Your task to perform on an android device: Open Google Chrome and open the bookmarks view Image 0: 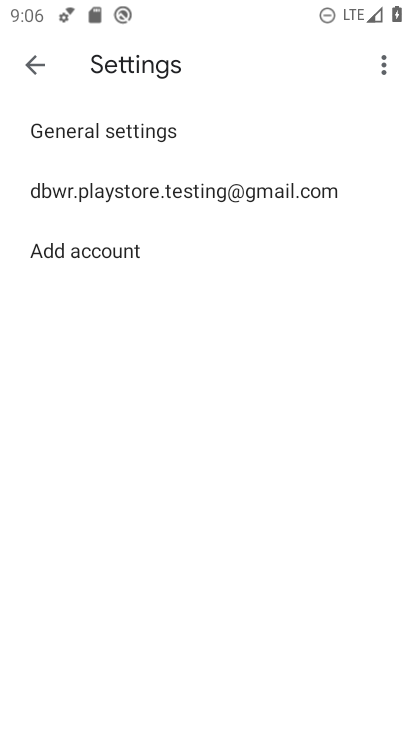
Step 0: press home button
Your task to perform on an android device: Open Google Chrome and open the bookmarks view Image 1: 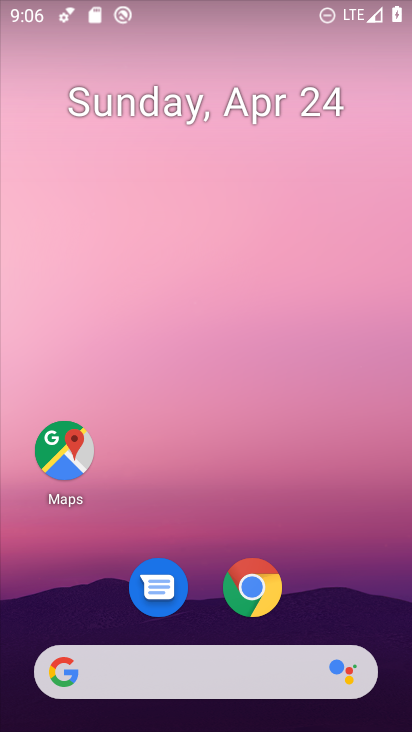
Step 1: drag from (356, 543) to (344, 67)
Your task to perform on an android device: Open Google Chrome and open the bookmarks view Image 2: 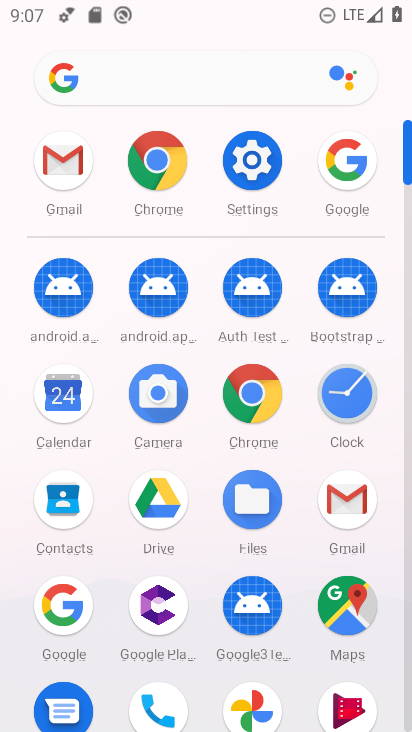
Step 2: click (261, 396)
Your task to perform on an android device: Open Google Chrome and open the bookmarks view Image 3: 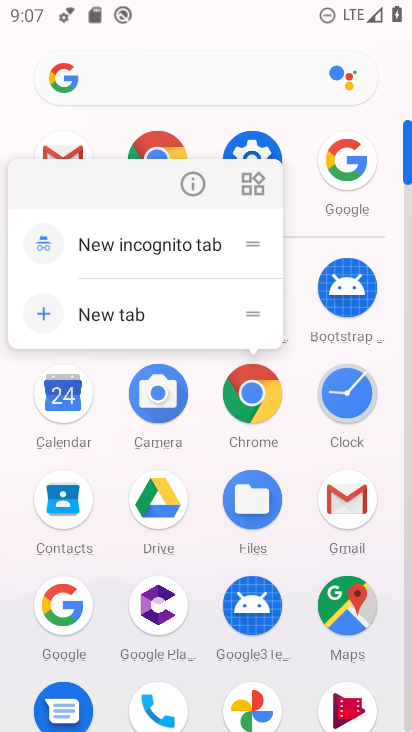
Step 3: click (264, 405)
Your task to perform on an android device: Open Google Chrome and open the bookmarks view Image 4: 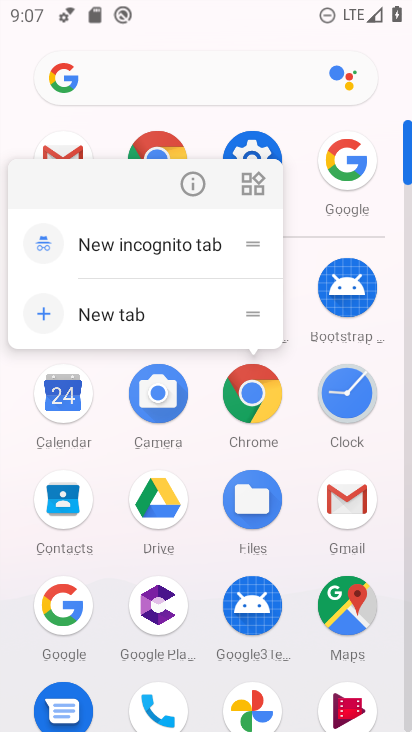
Step 4: click (264, 411)
Your task to perform on an android device: Open Google Chrome and open the bookmarks view Image 5: 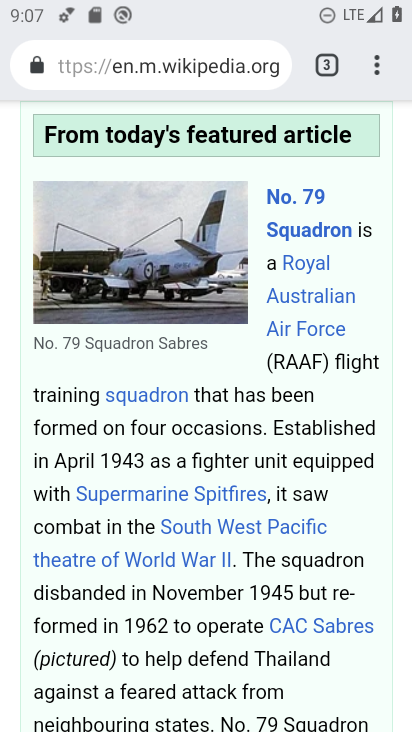
Step 5: task complete